Your task to perform on an android device: toggle location history Image 0: 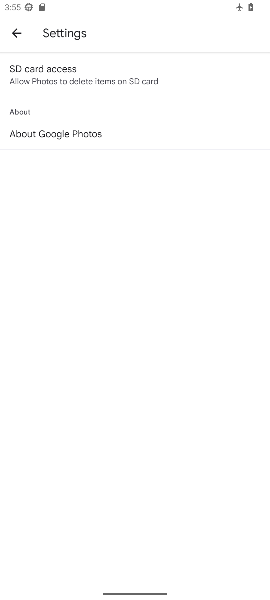
Step 0: press home button
Your task to perform on an android device: toggle location history Image 1: 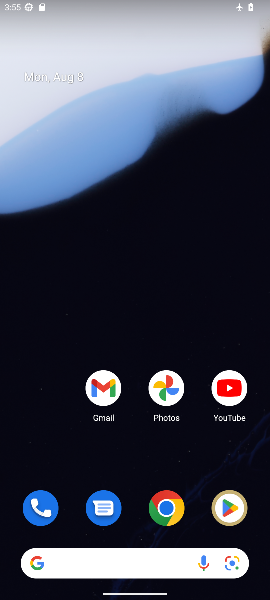
Step 1: drag from (133, 472) to (117, 30)
Your task to perform on an android device: toggle location history Image 2: 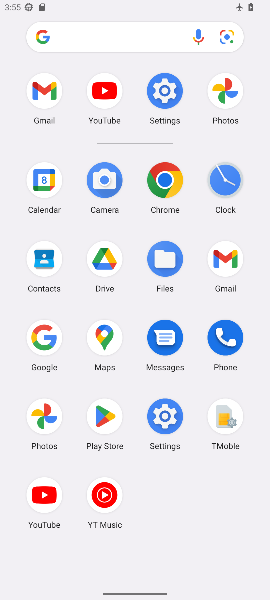
Step 2: click (166, 93)
Your task to perform on an android device: toggle location history Image 3: 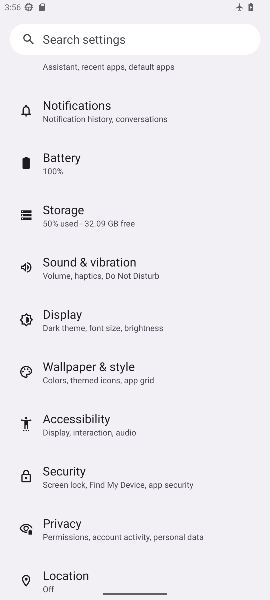
Step 3: click (66, 579)
Your task to perform on an android device: toggle location history Image 4: 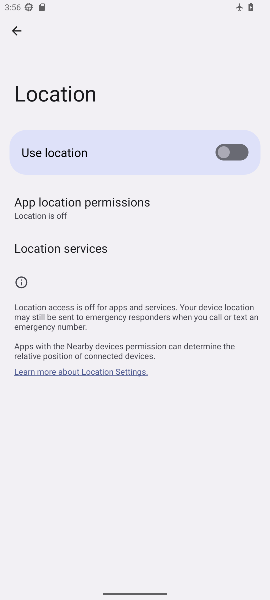
Step 4: click (68, 246)
Your task to perform on an android device: toggle location history Image 5: 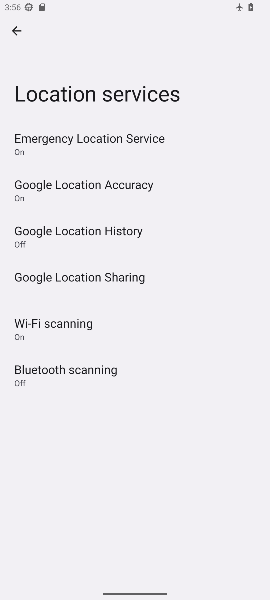
Step 5: click (97, 230)
Your task to perform on an android device: toggle location history Image 6: 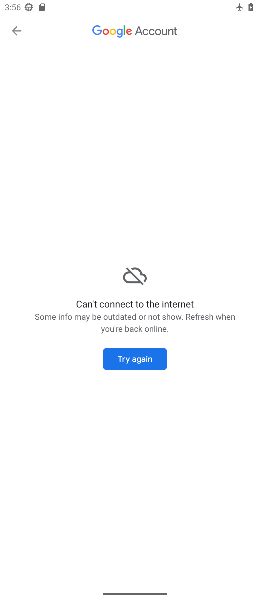
Step 6: click (144, 363)
Your task to perform on an android device: toggle location history Image 7: 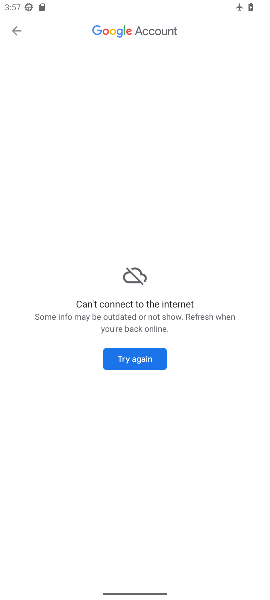
Step 7: task complete